Your task to perform on an android device: snooze an email in the gmail app Image 0: 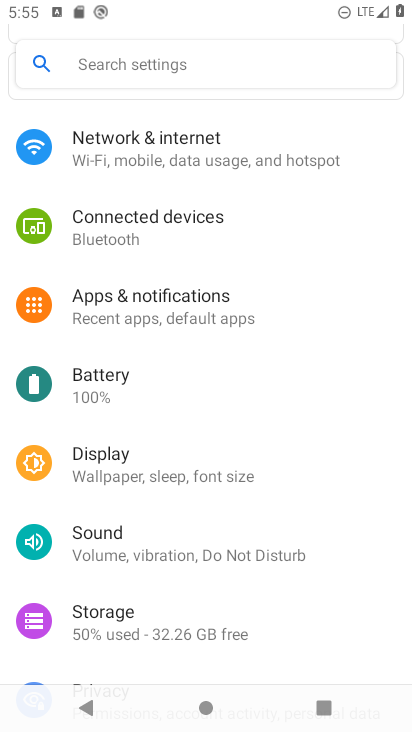
Step 0: press home button
Your task to perform on an android device: snooze an email in the gmail app Image 1: 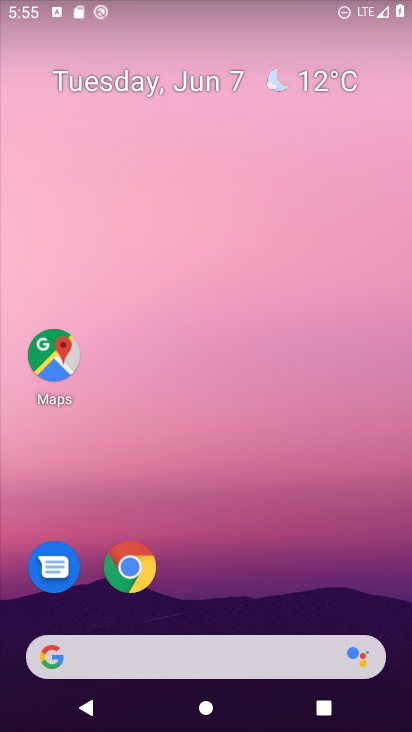
Step 1: drag from (298, 687) to (235, 141)
Your task to perform on an android device: snooze an email in the gmail app Image 2: 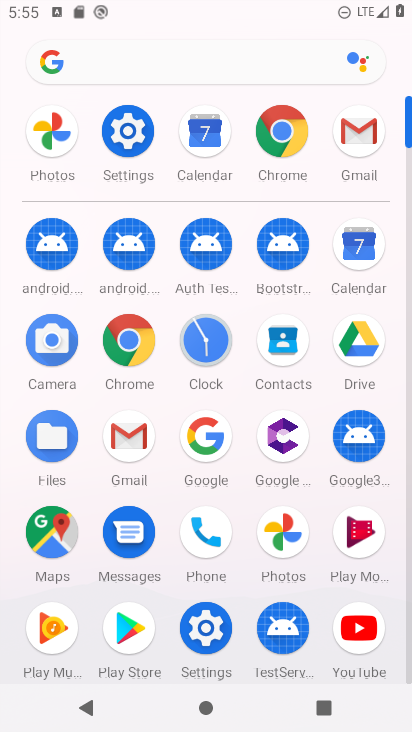
Step 2: click (142, 440)
Your task to perform on an android device: snooze an email in the gmail app Image 3: 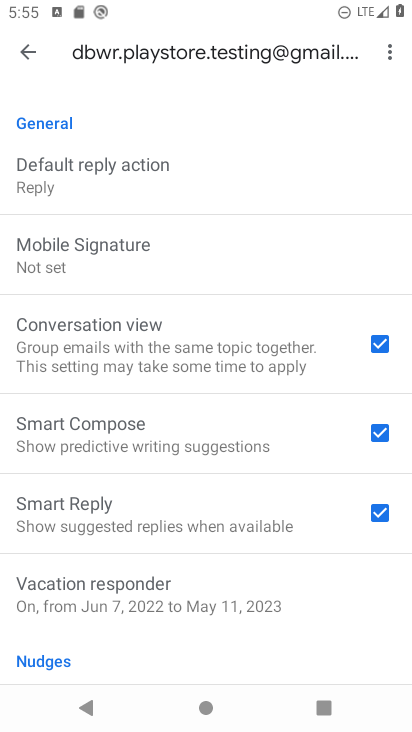
Step 3: press back button
Your task to perform on an android device: snooze an email in the gmail app Image 4: 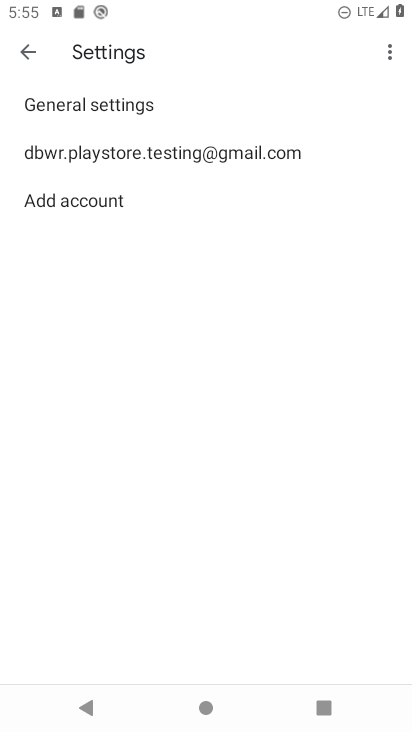
Step 4: press back button
Your task to perform on an android device: snooze an email in the gmail app Image 5: 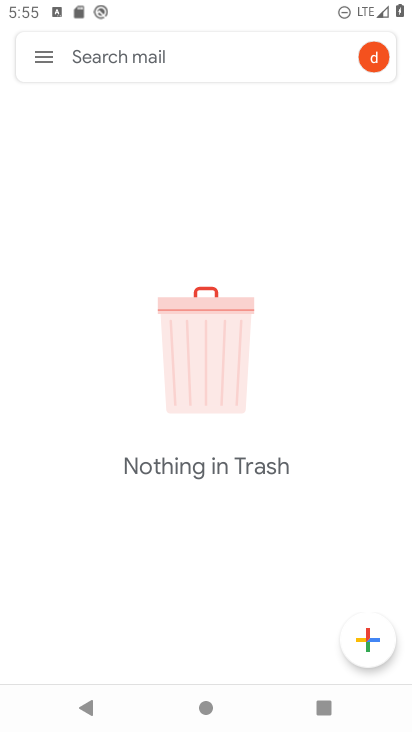
Step 5: click (41, 63)
Your task to perform on an android device: snooze an email in the gmail app Image 6: 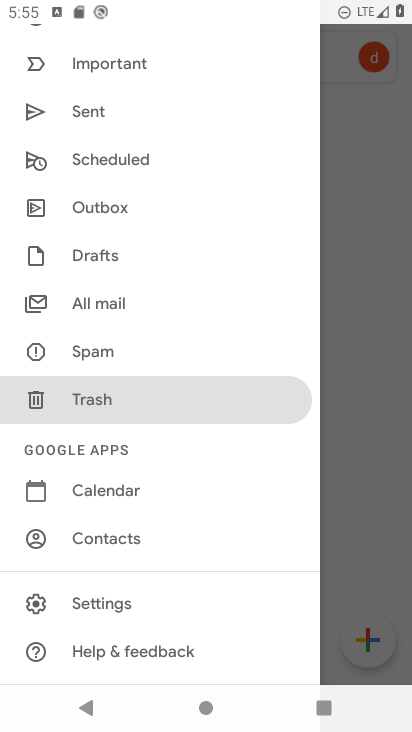
Step 6: drag from (137, 250) to (160, 565)
Your task to perform on an android device: snooze an email in the gmail app Image 7: 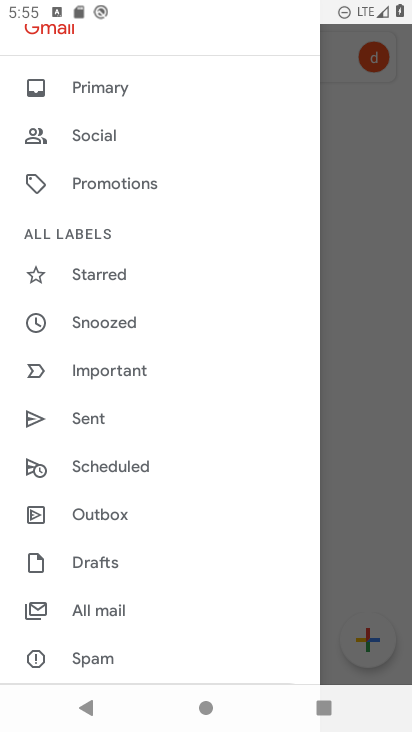
Step 7: click (124, 325)
Your task to perform on an android device: snooze an email in the gmail app Image 8: 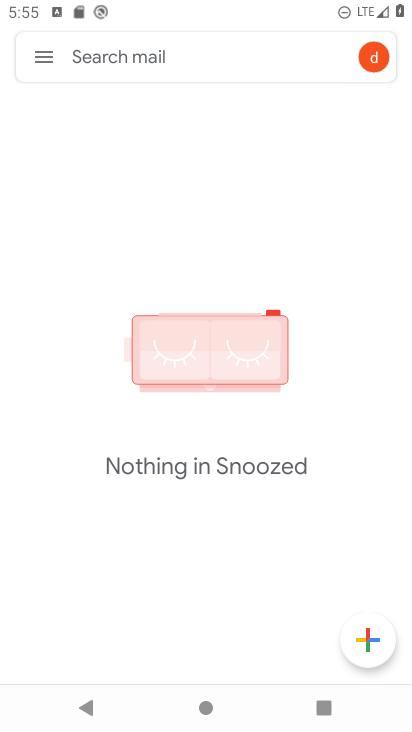
Step 8: task complete